Your task to perform on an android device: open app "Skype" (install if not already installed) Image 0: 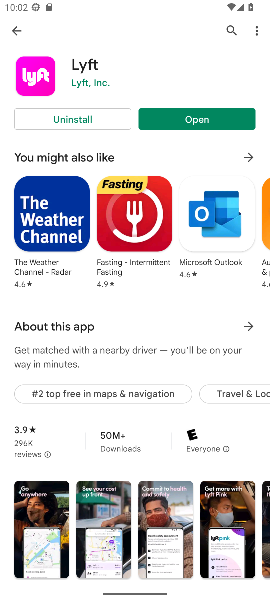
Step 0: click (232, 29)
Your task to perform on an android device: open app "Skype" (install if not already installed) Image 1: 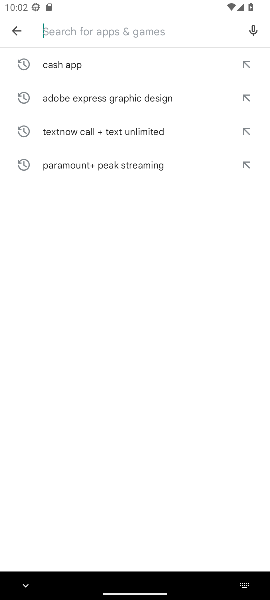
Step 1: type "Skype"
Your task to perform on an android device: open app "Skype" (install if not already installed) Image 2: 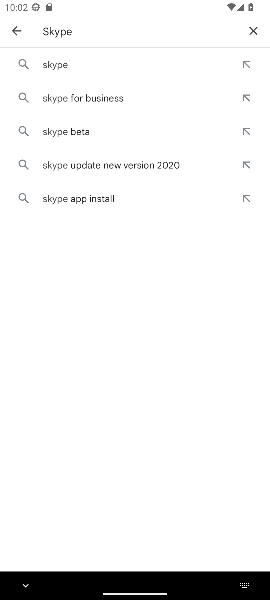
Step 2: click (49, 69)
Your task to perform on an android device: open app "Skype" (install if not already installed) Image 3: 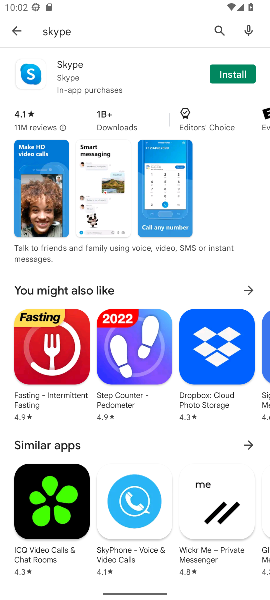
Step 3: click (229, 69)
Your task to perform on an android device: open app "Skype" (install if not already installed) Image 4: 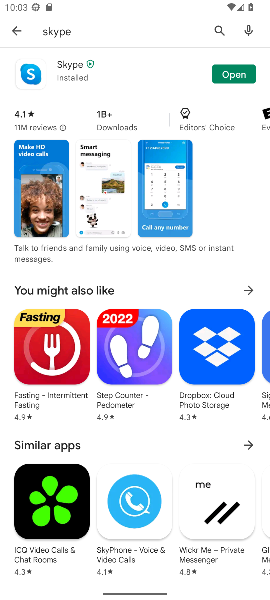
Step 4: click (231, 77)
Your task to perform on an android device: open app "Skype" (install if not already installed) Image 5: 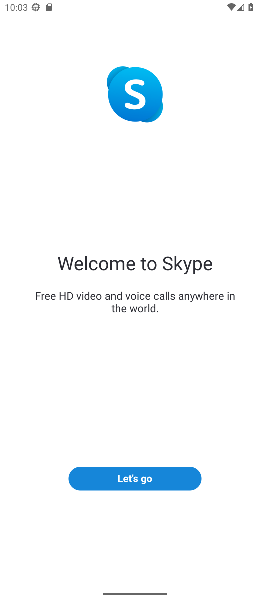
Step 5: task complete